Your task to perform on an android device: Search for "lenovo thinkpad" on target, select the first entry, add it to the cart, then select checkout. Image 0: 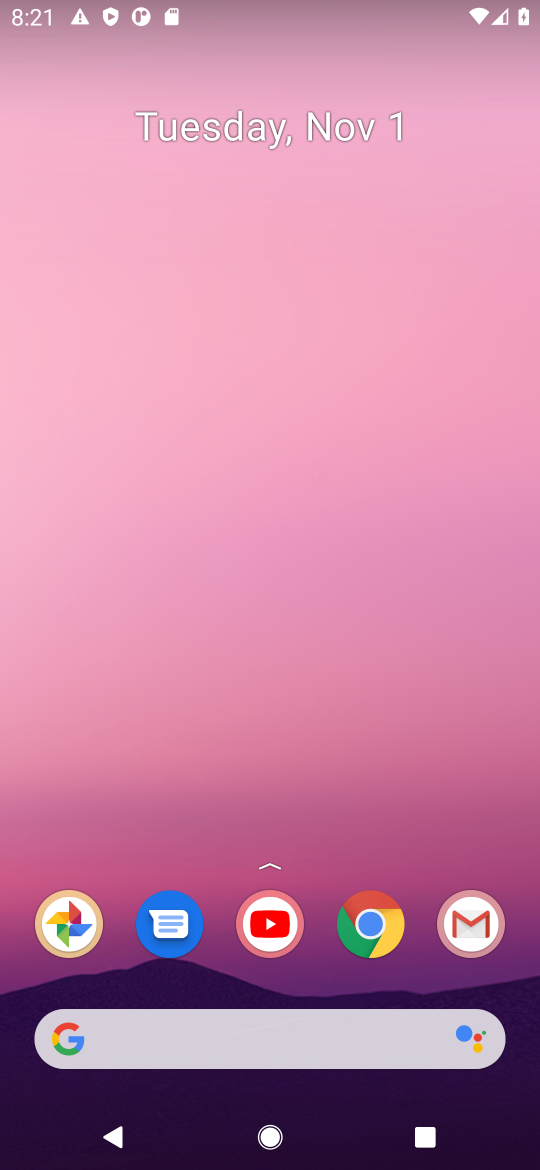
Step 0: press home button
Your task to perform on an android device: Search for "lenovo thinkpad" on target, select the first entry, add it to the cart, then select checkout. Image 1: 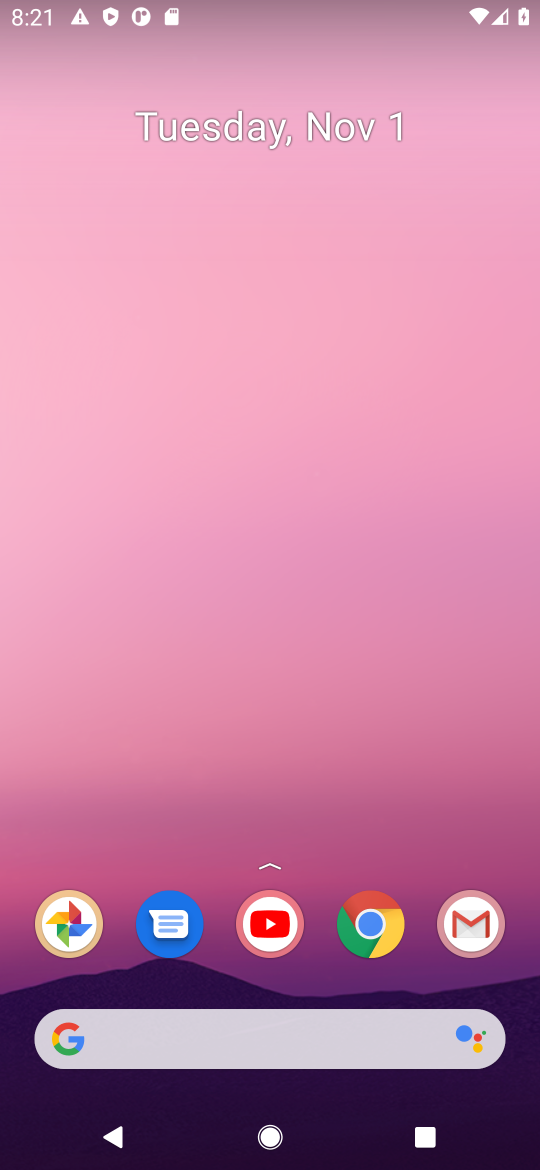
Step 1: click (114, 1034)
Your task to perform on an android device: Search for "lenovo thinkpad" on target, select the first entry, add it to the cart, then select checkout. Image 2: 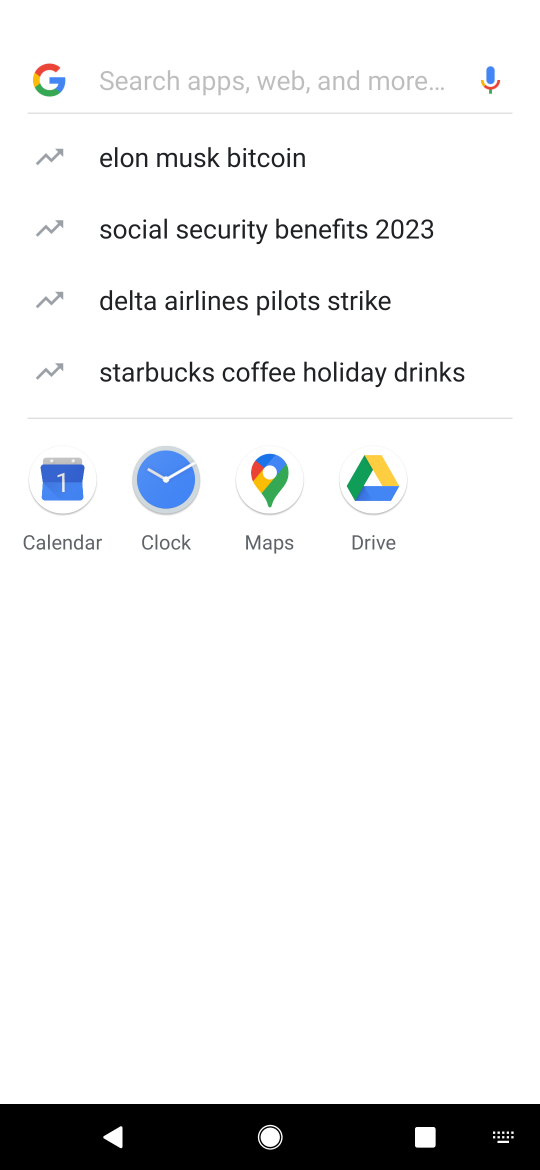
Step 2: type "target"
Your task to perform on an android device: Search for "lenovo thinkpad" on target, select the first entry, add it to the cart, then select checkout. Image 3: 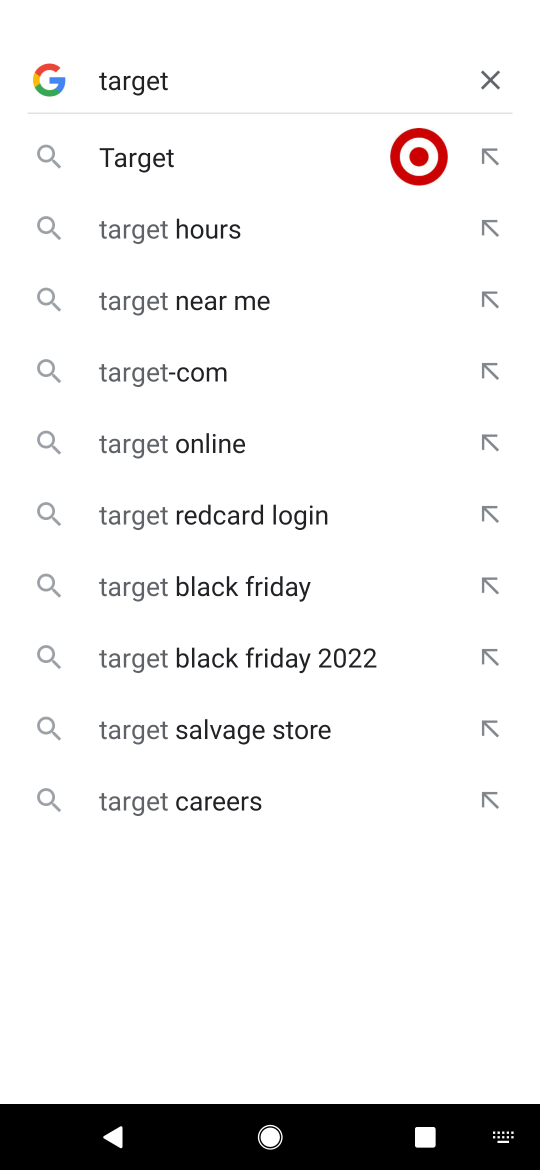
Step 3: press enter
Your task to perform on an android device: Search for "lenovo thinkpad" on target, select the first entry, add it to the cart, then select checkout. Image 4: 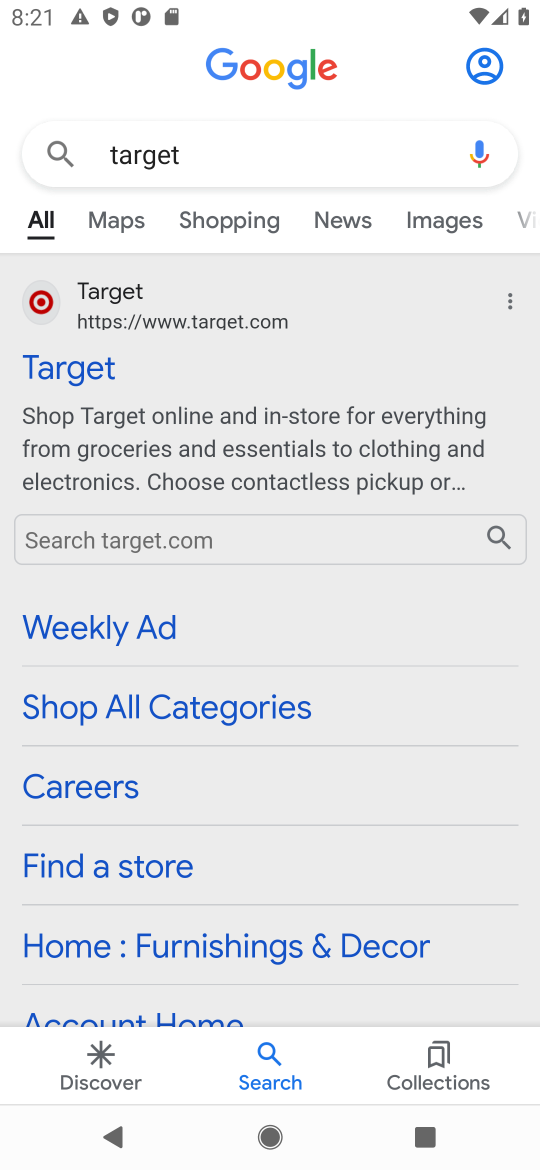
Step 4: click (77, 367)
Your task to perform on an android device: Search for "lenovo thinkpad" on target, select the first entry, add it to the cart, then select checkout. Image 5: 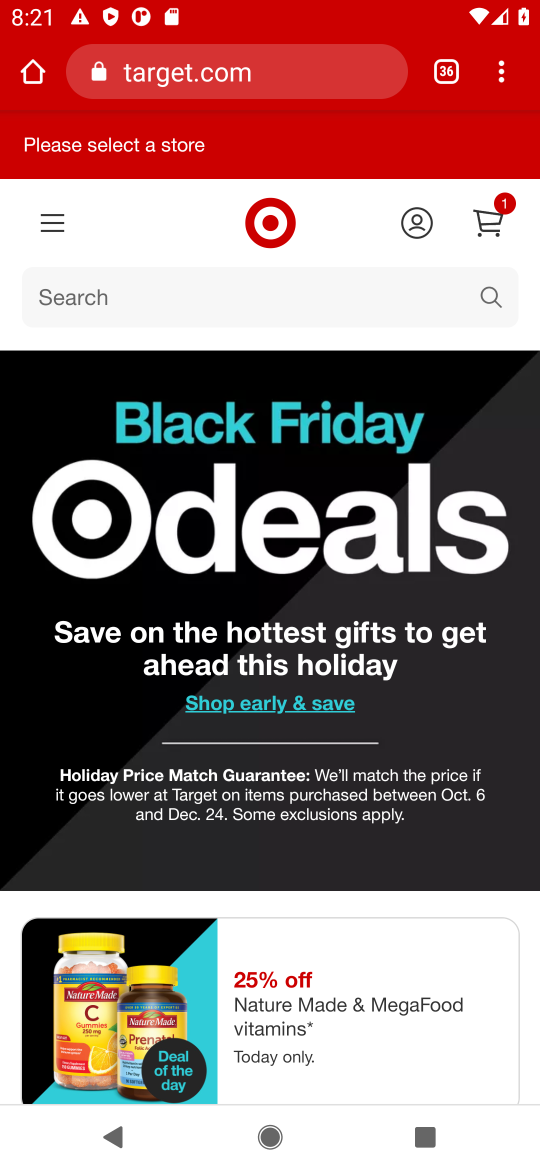
Step 5: click (114, 288)
Your task to perform on an android device: Search for "lenovo thinkpad" on target, select the first entry, add it to the cart, then select checkout. Image 6: 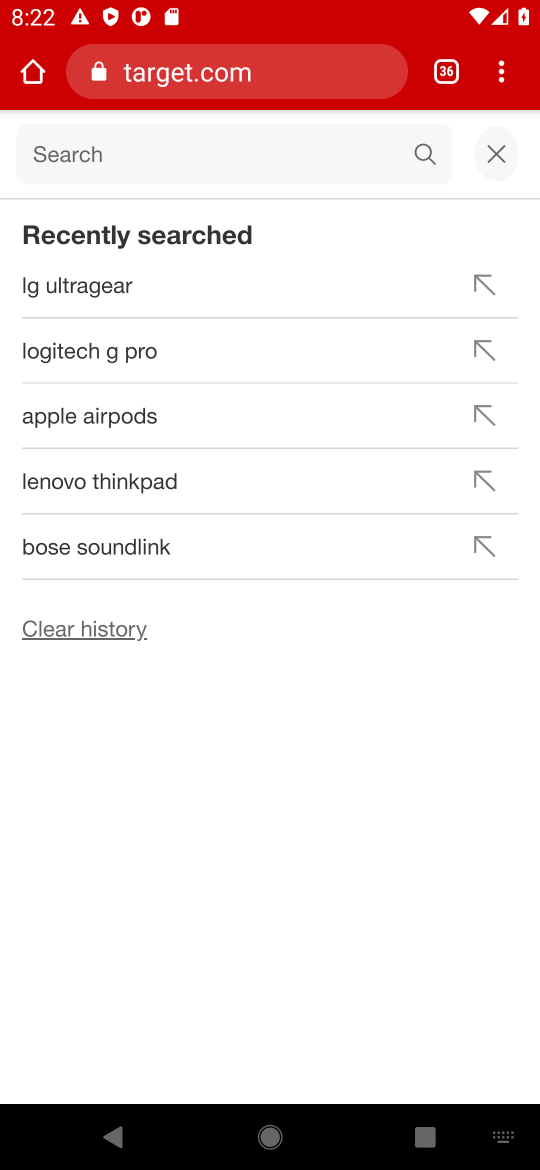
Step 6: type "lenovo thinkpad"
Your task to perform on an android device: Search for "lenovo thinkpad" on target, select the first entry, add it to the cart, then select checkout. Image 7: 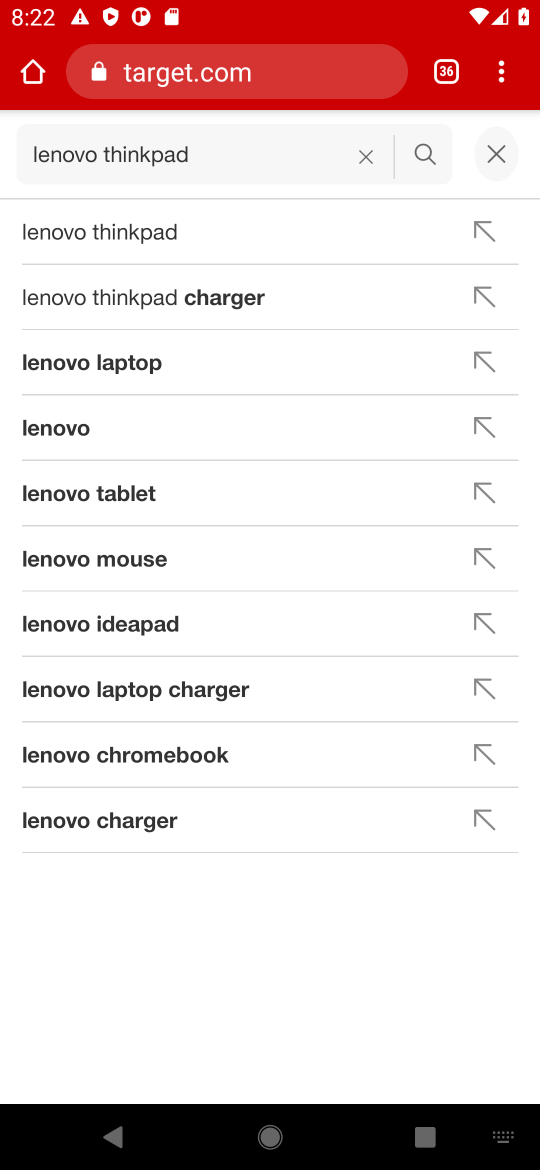
Step 7: click (432, 151)
Your task to perform on an android device: Search for "lenovo thinkpad" on target, select the first entry, add it to the cart, then select checkout. Image 8: 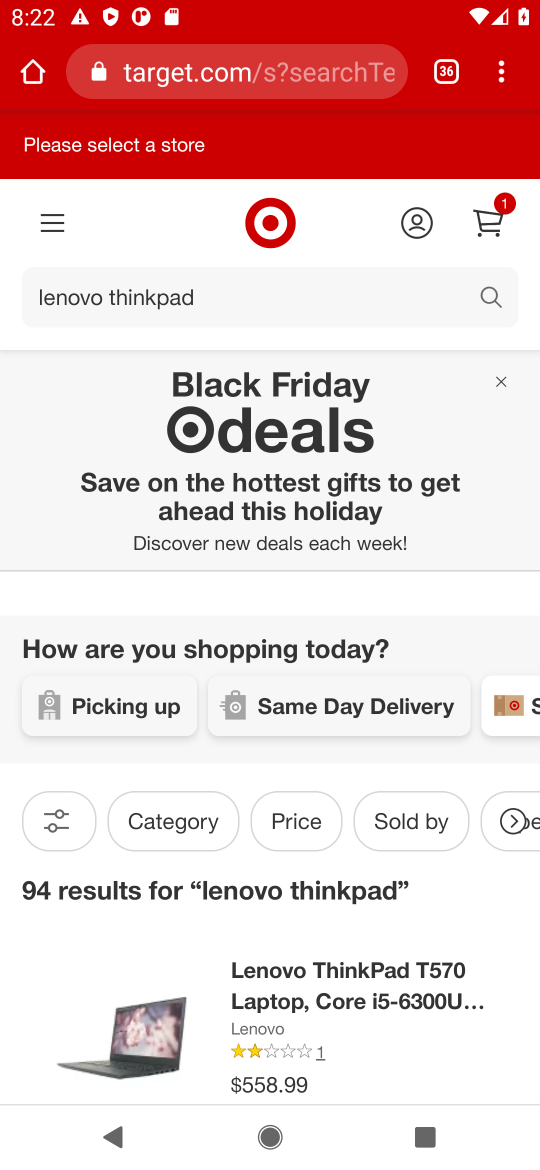
Step 8: click (359, 679)
Your task to perform on an android device: Search for "lenovo thinkpad" on target, select the first entry, add it to the cart, then select checkout. Image 9: 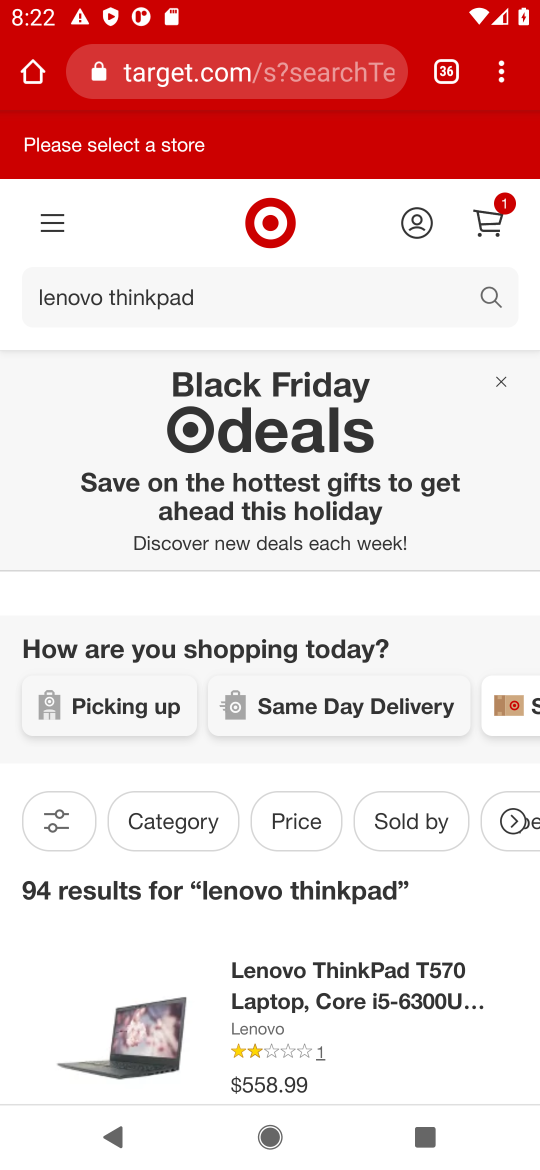
Step 9: drag from (331, 947) to (329, 534)
Your task to perform on an android device: Search for "lenovo thinkpad" on target, select the first entry, add it to the cart, then select checkout. Image 10: 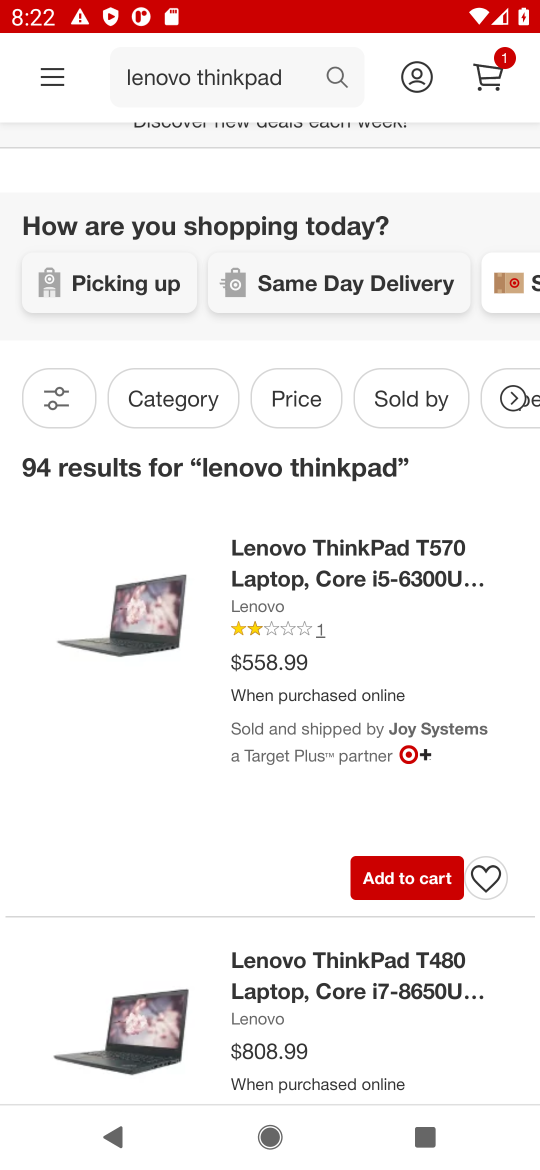
Step 10: click (412, 875)
Your task to perform on an android device: Search for "lenovo thinkpad" on target, select the first entry, add it to the cart, then select checkout. Image 11: 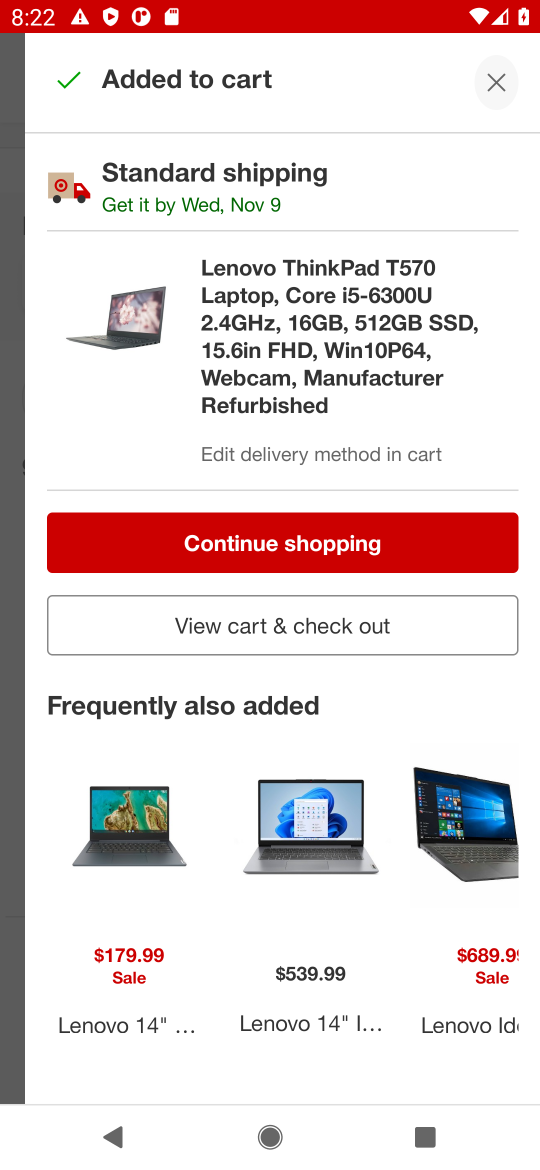
Step 11: click (235, 625)
Your task to perform on an android device: Search for "lenovo thinkpad" on target, select the first entry, add it to the cart, then select checkout. Image 12: 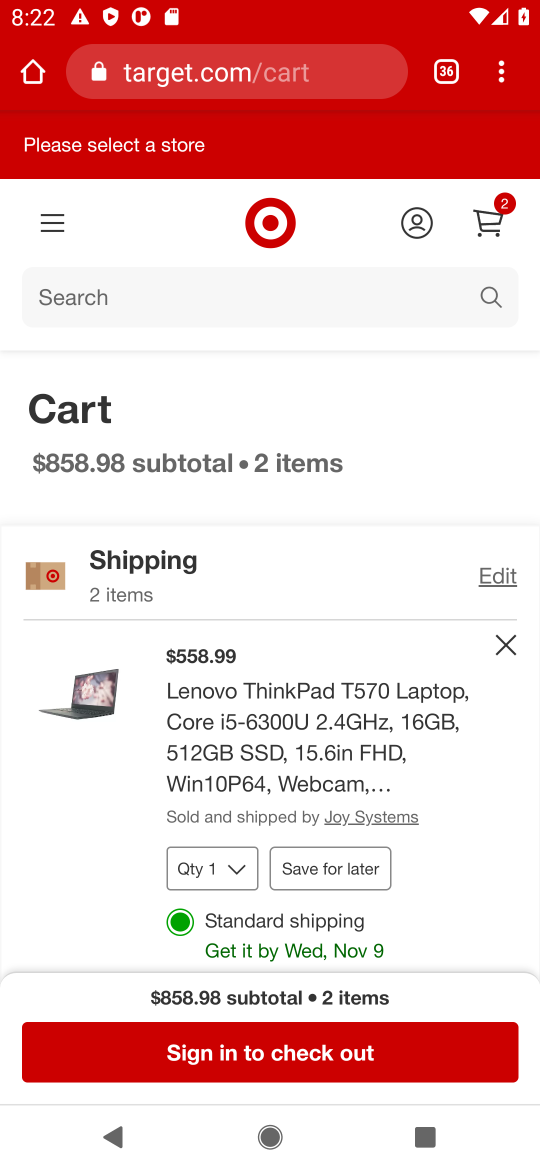
Step 12: click (300, 1052)
Your task to perform on an android device: Search for "lenovo thinkpad" on target, select the first entry, add it to the cart, then select checkout. Image 13: 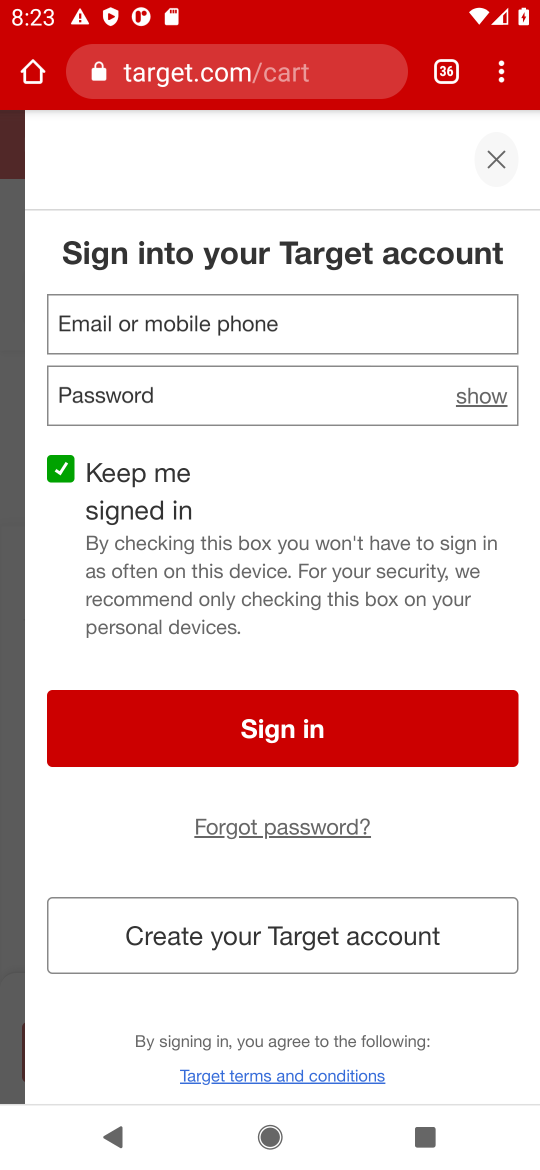
Step 13: task complete